Your task to perform on an android device: all mails in gmail Image 0: 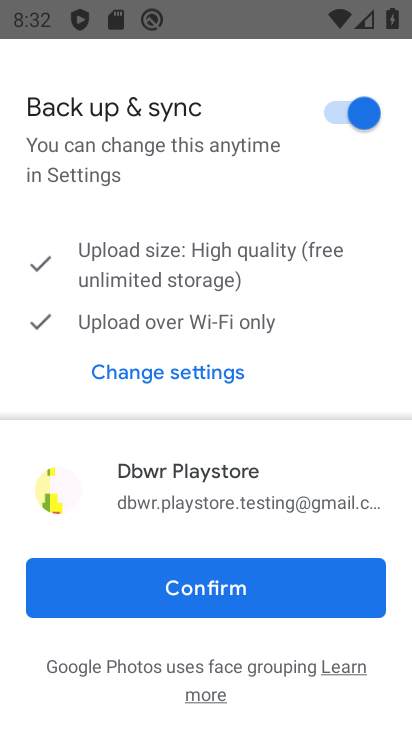
Step 0: drag from (317, 595) to (323, 10)
Your task to perform on an android device: all mails in gmail Image 1: 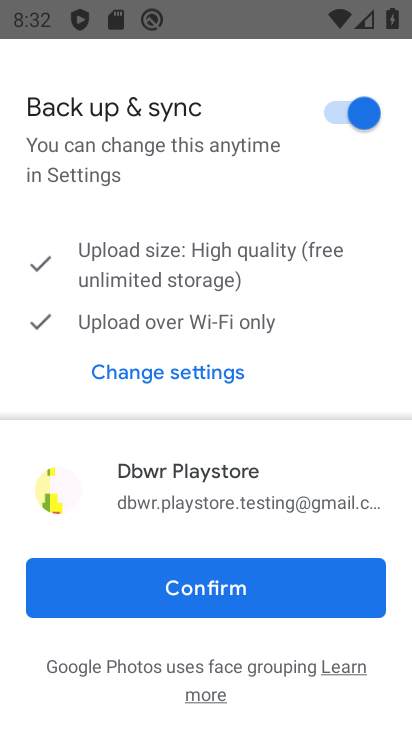
Step 1: press home button
Your task to perform on an android device: all mails in gmail Image 2: 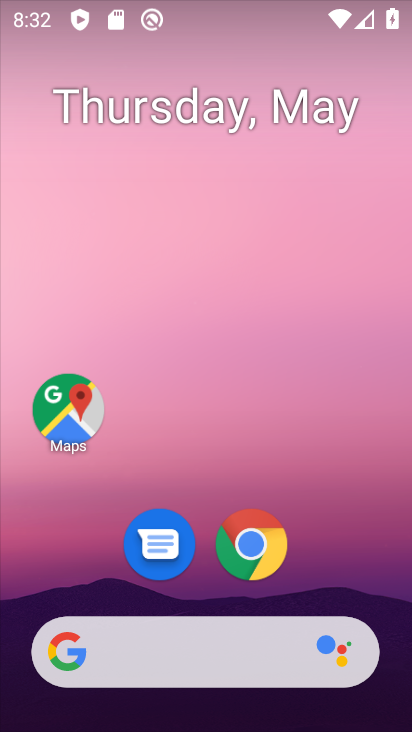
Step 2: click (344, 498)
Your task to perform on an android device: all mails in gmail Image 3: 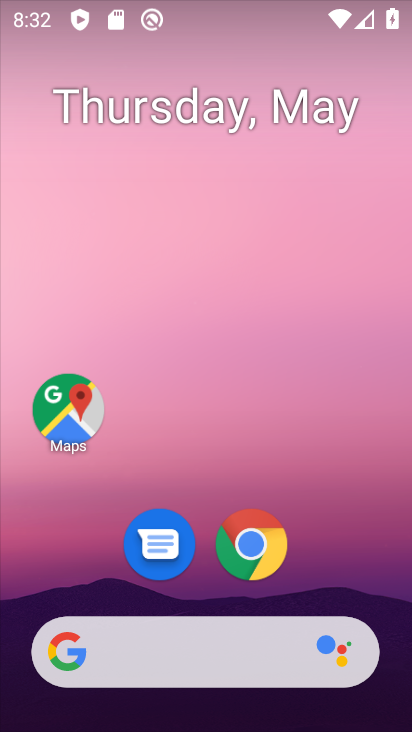
Step 3: drag from (212, 544) to (311, 101)
Your task to perform on an android device: all mails in gmail Image 4: 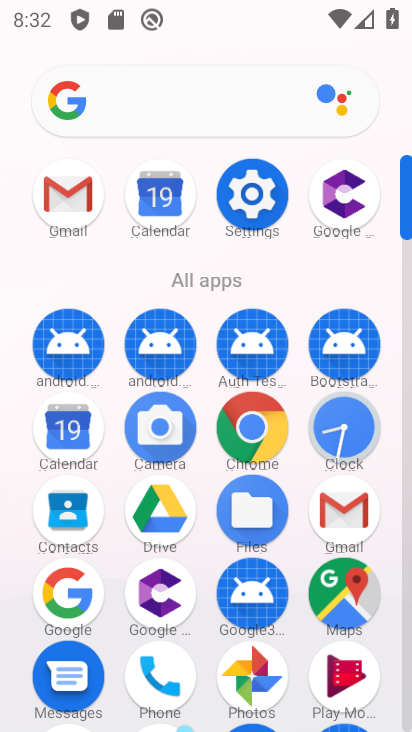
Step 4: click (52, 86)
Your task to perform on an android device: all mails in gmail Image 5: 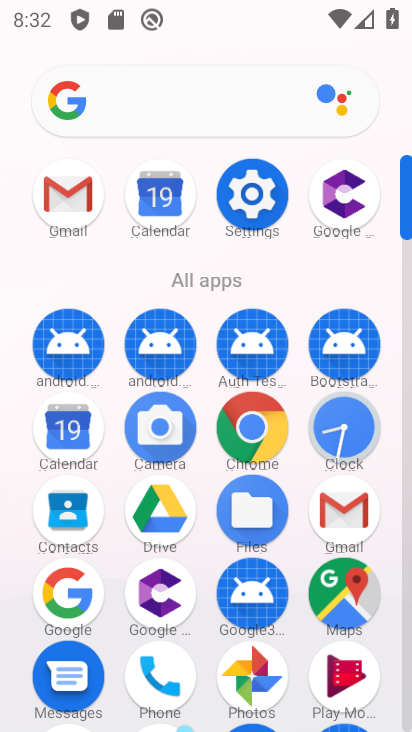
Step 5: click (64, 212)
Your task to perform on an android device: all mails in gmail Image 6: 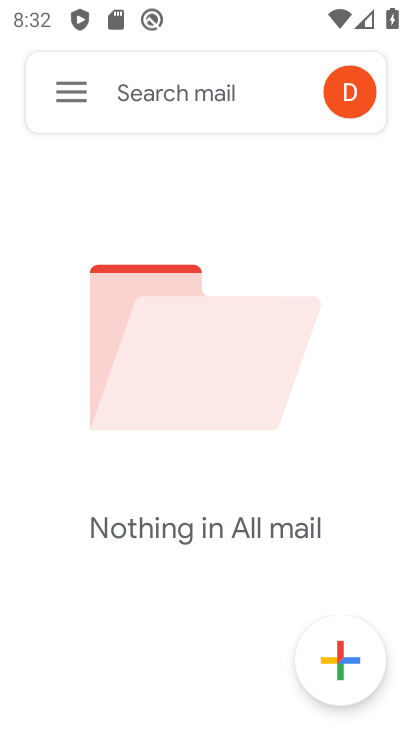
Step 6: task complete
Your task to perform on an android device: all mails in gmail Image 7: 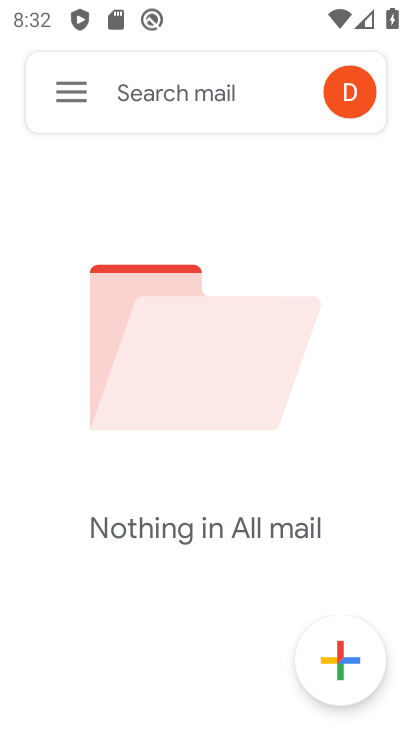
Step 7: task complete